Your task to perform on an android device: turn notification dots off Image 0: 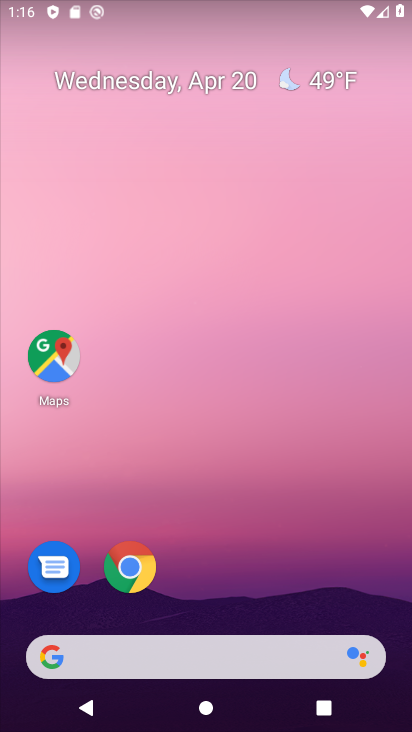
Step 0: drag from (298, 524) to (301, 485)
Your task to perform on an android device: turn notification dots off Image 1: 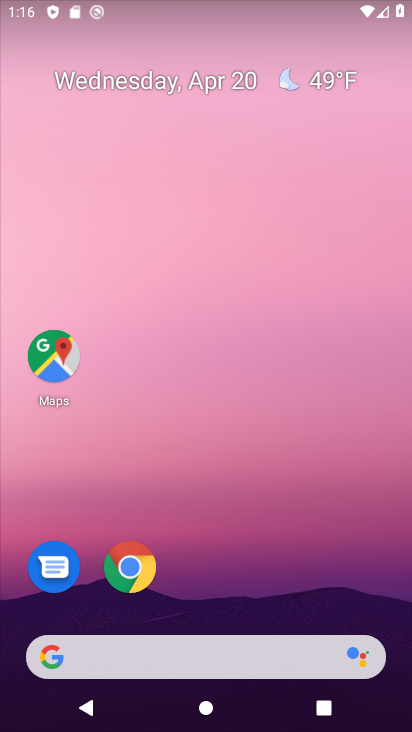
Step 1: drag from (286, 523) to (284, 148)
Your task to perform on an android device: turn notification dots off Image 2: 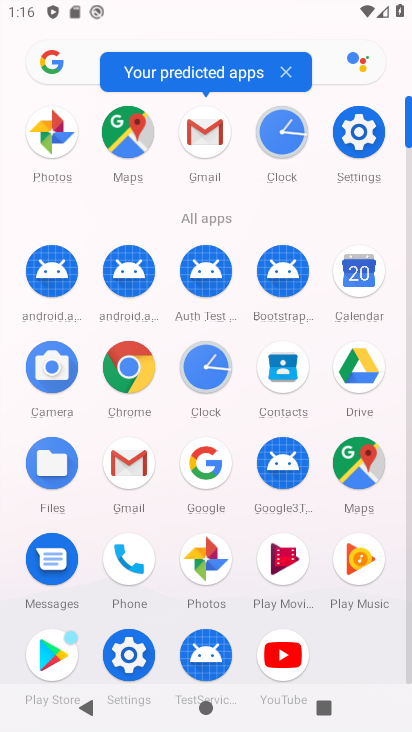
Step 2: click (359, 125)
Your task to perform on an android device: turn notification dots off Image 3: 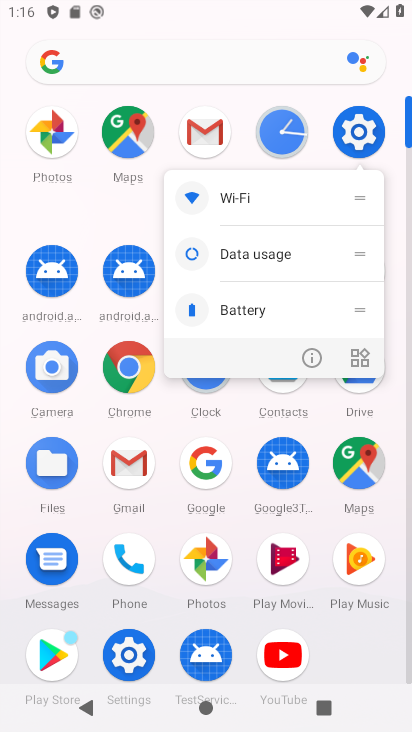
Step 3: click (360, 147)
Your task to perform on an android device: turn notification dots off Image 4: 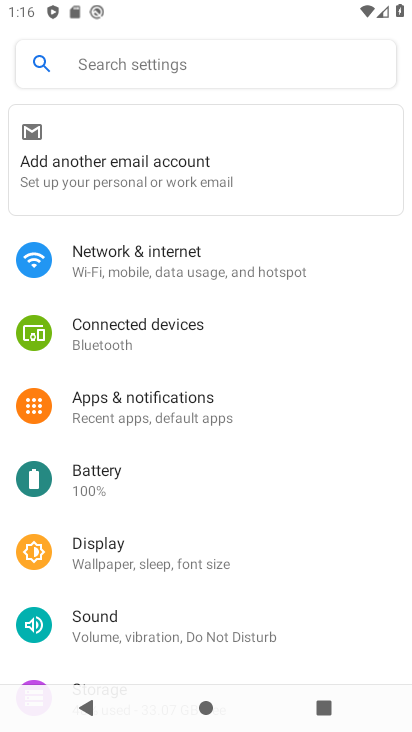
Step 4: click (189, 415)
Your task to perform on an android device: turn notification dots off Image 5: 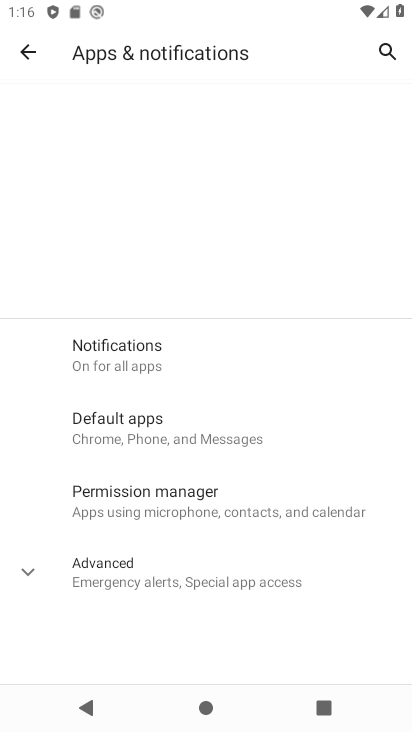
Step 5: click (166, 367)
Your task to perform on an android device: turn notification dots off Image 6: 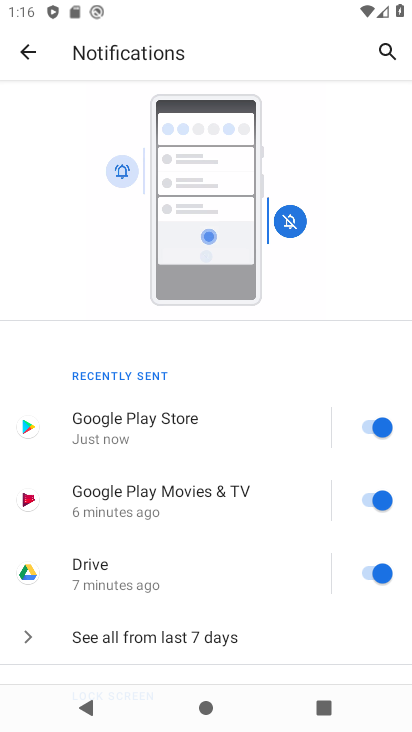
Step 6: drag from (161, 610) to (181, 395)
Your task to perform on an android device: turn notification dots off Image 7: 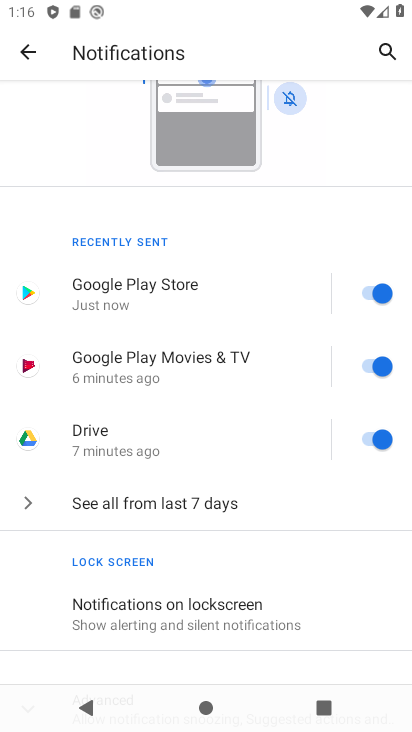
Step 7: drag from (24, 593) to (35, 305)
Your task to perform on an android device: turn notification dots off Image 8: 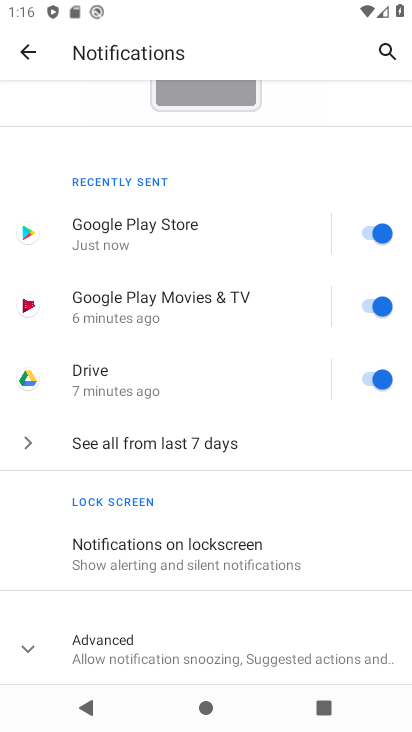
Step 8: click (29, 648)
Your task to perform on an android device: turn notification dots off Image 9: 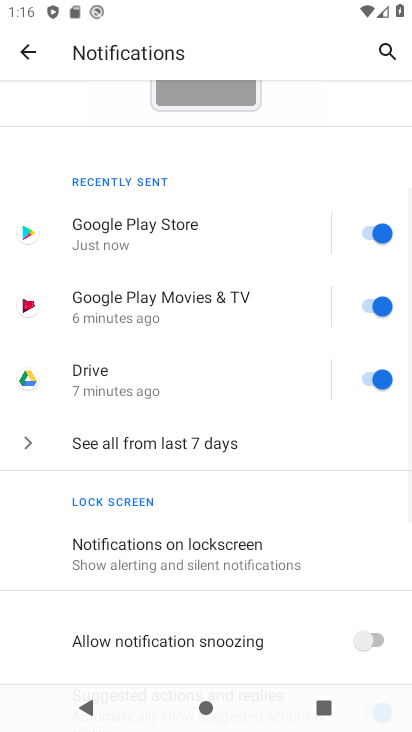
Step 9: drag from (290, 650) to (324, 292)
Your task to perform on an android device: turn notification dots off Image 10: 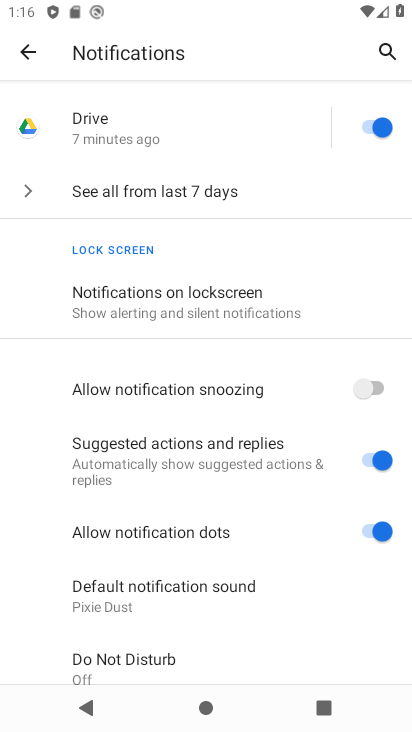
Step 10: click (393, 517)
Your task to perform on an android device: turn notification dots off Image 11: 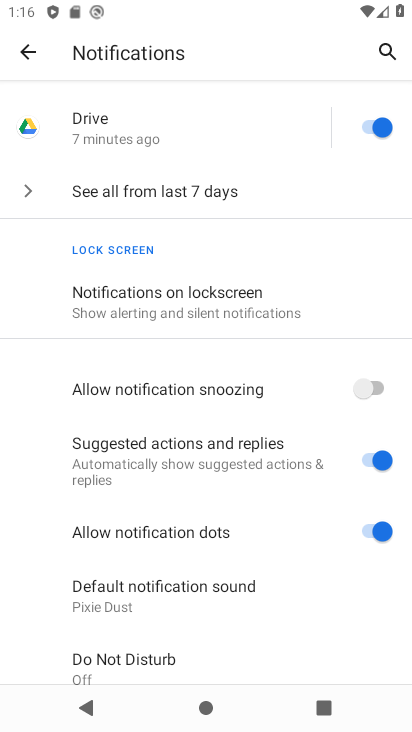
Step 11: click (372, 537)
Your task to perform on an android device: turn notification dots off Image 12: 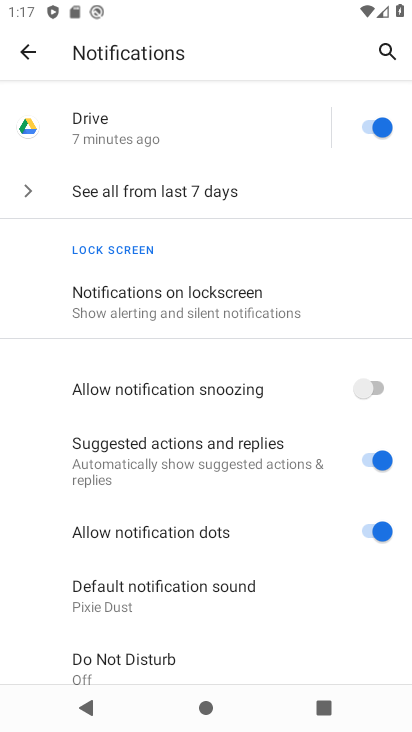
Step 12: task complete